Your task to perform on an android device: Open calendar and show me the first week of next month Image 0: 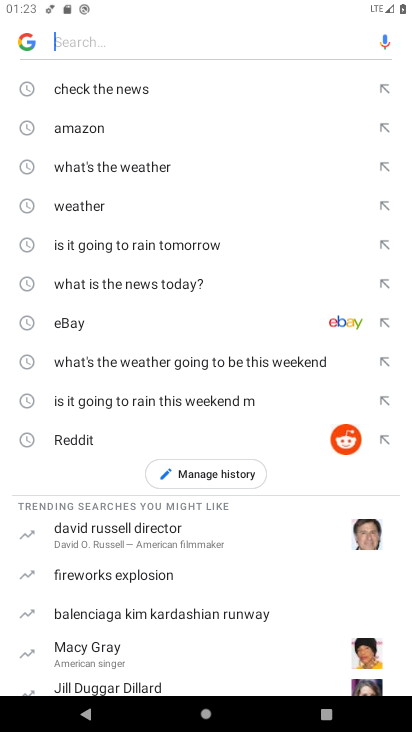
Step 0: press home button
Your task to perform on an android device: Open calendar and show me the first week of next month Image 1: 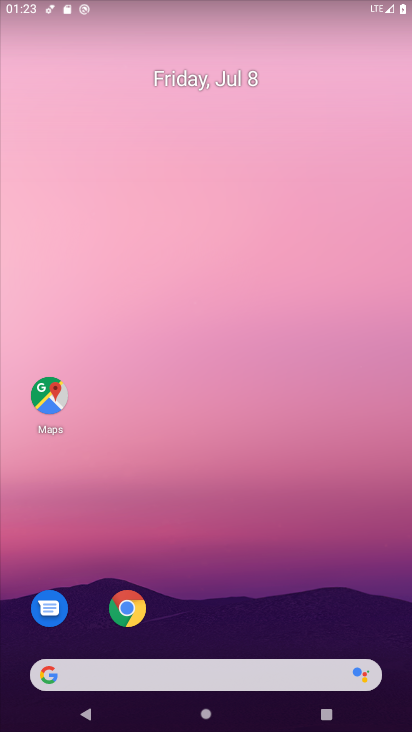
Step 1: drag from (282, 610) to (292, 174)
Your task to perform on an android device: Open calendar and show me the first week of next month Image 2: 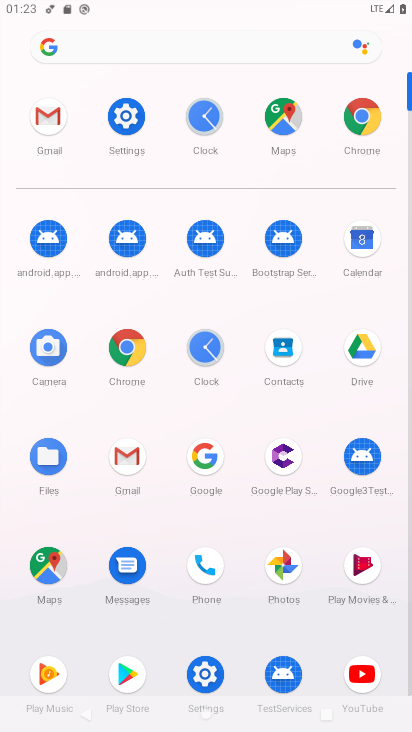
Step 2: click (369, 227)
Your task to perform on an android device: Open calendar and show me the first week of next month Image 3: 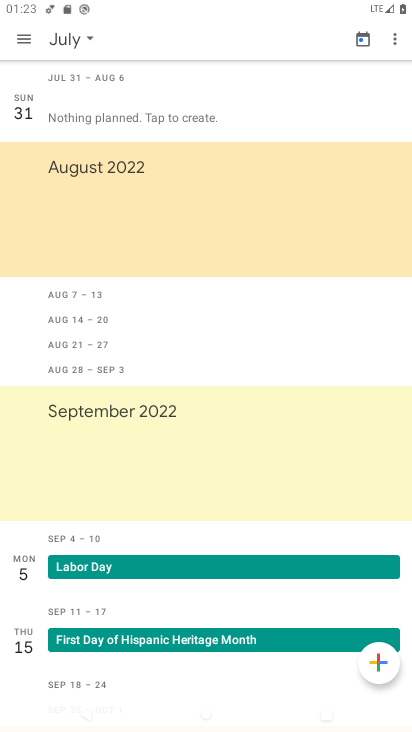
Step 3: click (18, 26)
Your task to perform on an android device: Open calendar and show me the first week of next month Image 4: 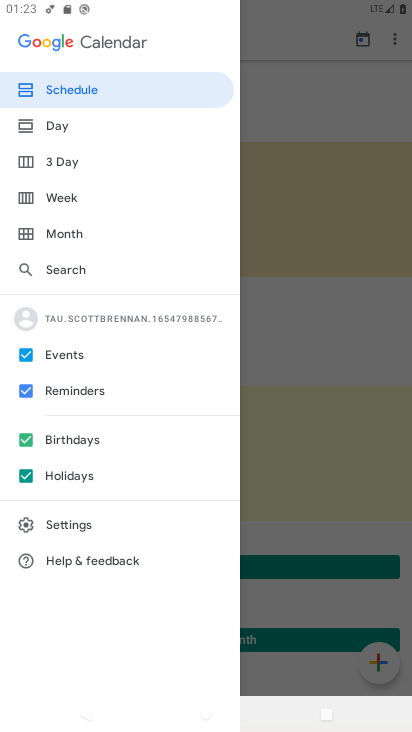
Step 4: click (55, 221)
Your task to perform on an android device: Open calendar and show me the first week of next month Image 5: 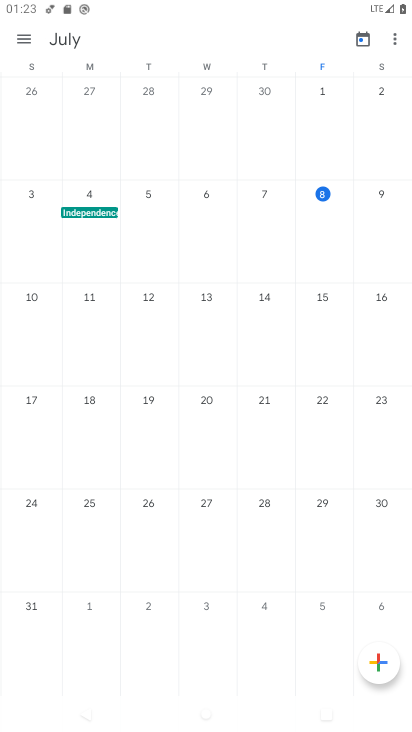
Step 5: click (390, 210)
Your task to perform on an android device: Open calendar and show me the first week of next month Image 6: 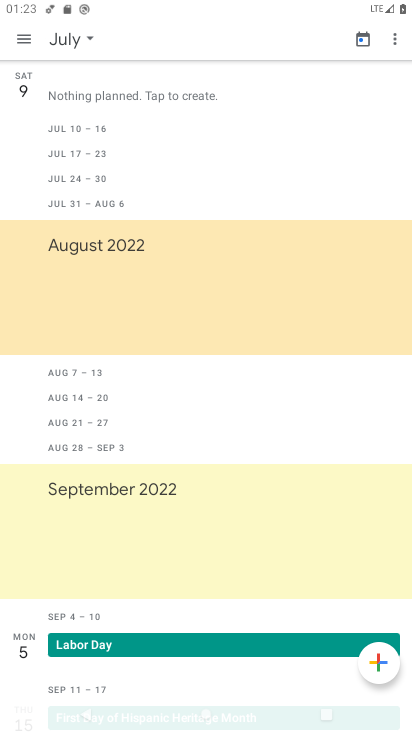
Step 6: task complete